Your task to perform on an android device: turn off translation in the chrome app Image 0: 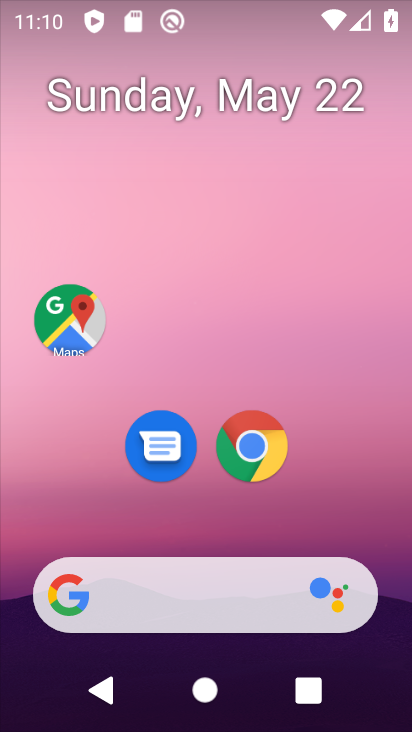
Step 0: click (259, 448)
Your task to perform on an android device: turn off translation in the chrome app Image 1: 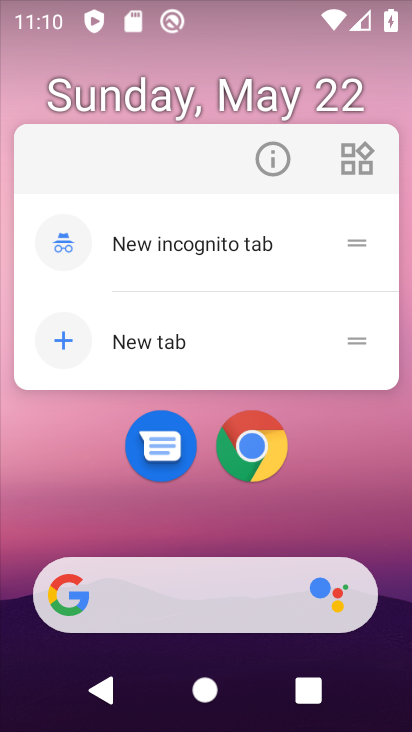
Step 1: click (267, 435)
Your task to perform on an android device: turn off translation in the chrome app Image 2: 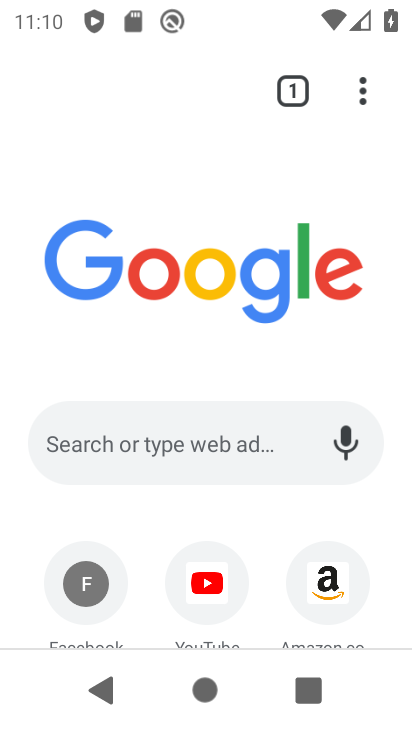
Step 2: drag from (361, 93) to (106, 461)
Your task to perform on an android device: turn off translation in the chrome app Image 3: 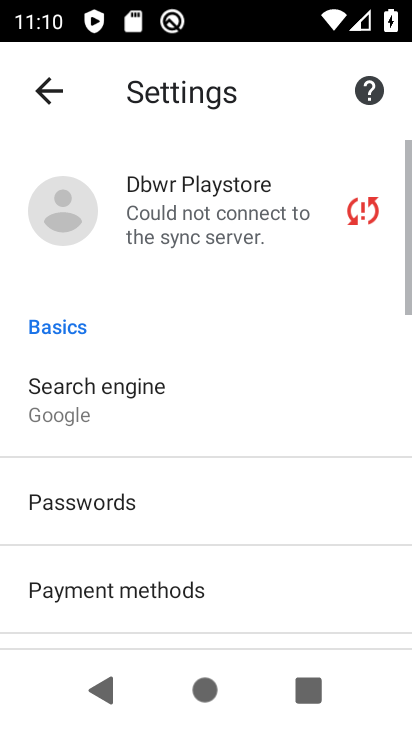
Step 3: drag from (103, 573) to (216, 152)
Your task to perform on an android device: turn off translation in the chrome app Image 4: 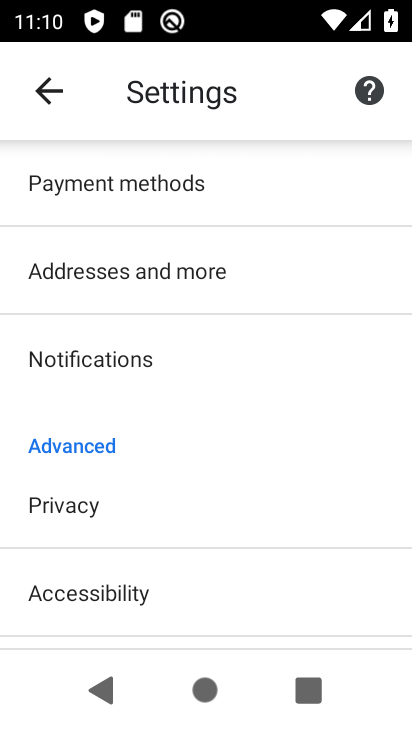
Step 4: drag from (159, 585) to (254, 192)
Your task to perform on an android device: turn off translation in the chrome app Image 5: 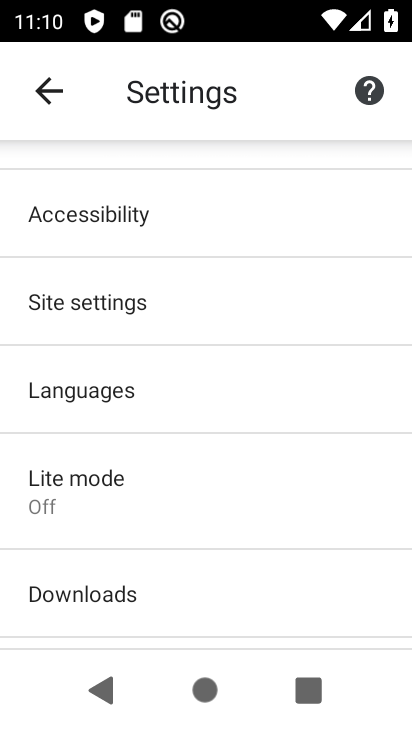
Step 5: click (97, 393)
Your task to perform on an android device: turn off translation in the chrome app Image 6: 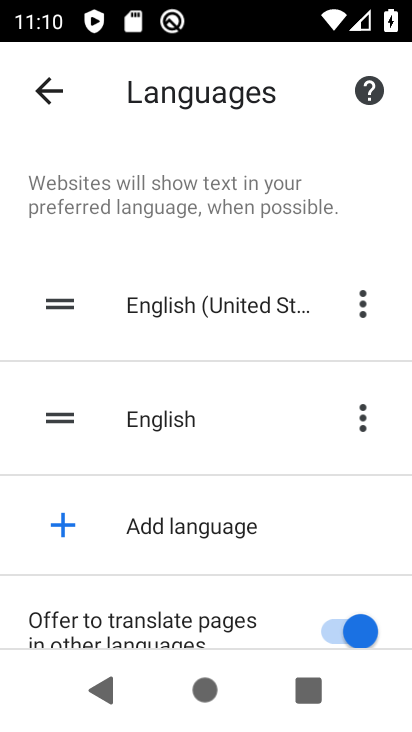
Step 6: click (362, 626)
Your task to perform on an android device: turn off translation in the chrome app Image 7: 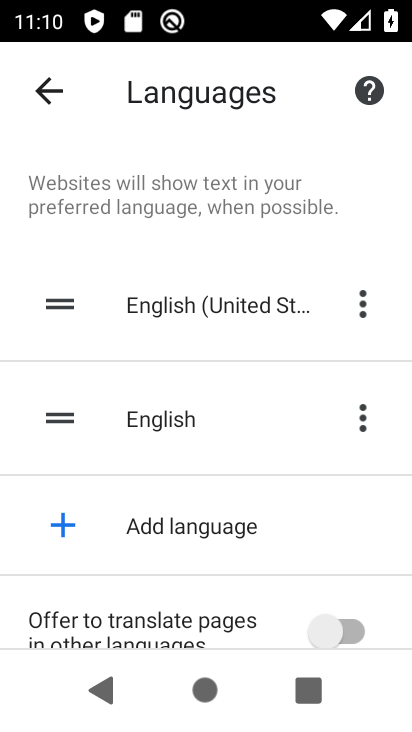
Step 7: task complete